Your task to perform on an android device: Toggle the flashlight Image 0: 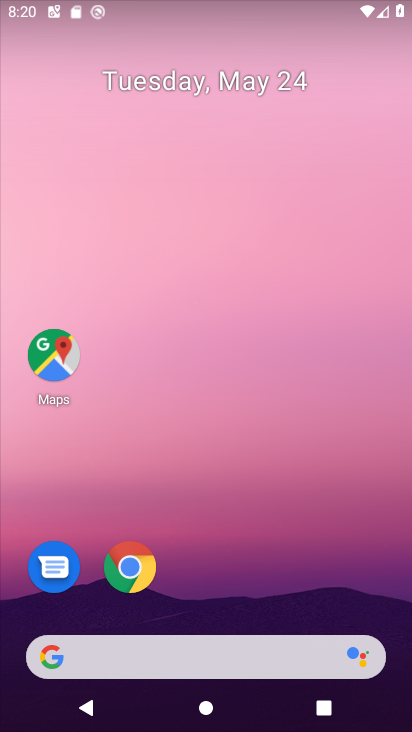
Step 0: click (257, 42)
Your task to perform on an android device: Toggle the flashlight Image 1: 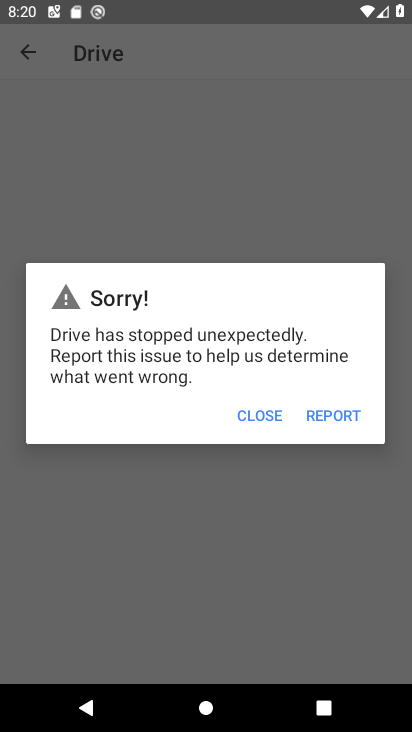
Step 1: task complete